Your task to perform on an android device: turn off javascript in the chrome app Image 0: 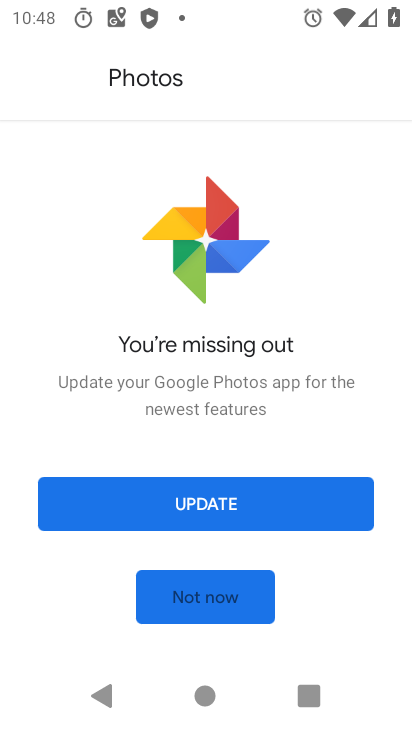
Step 0: press home button
Your task to perform on an android device: turn off javascript in the chrome app Image 1: 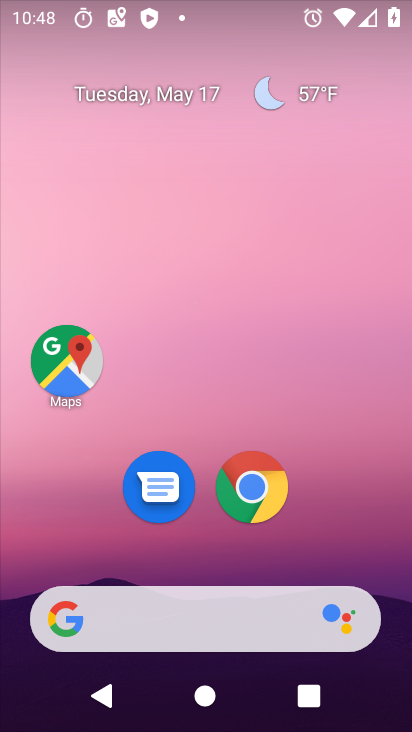
Step 1: click (252, 480)
Your task to perform on an android device: turn off javascript in the chrome app Image 2: 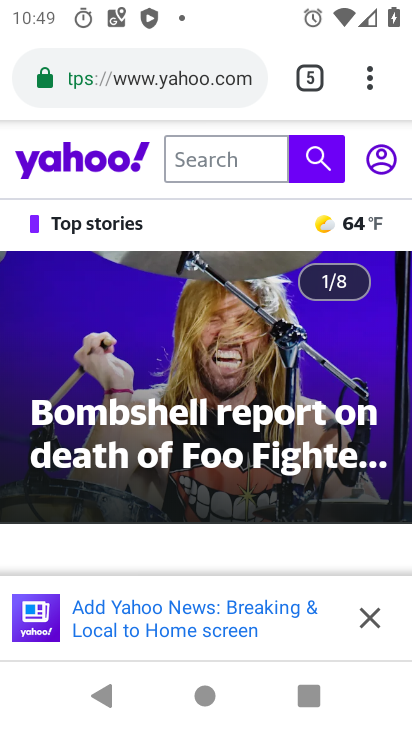
Step 2: click (373, 84)
Your task to perform on an android device: turn off javascript in the chrome app Image 3: 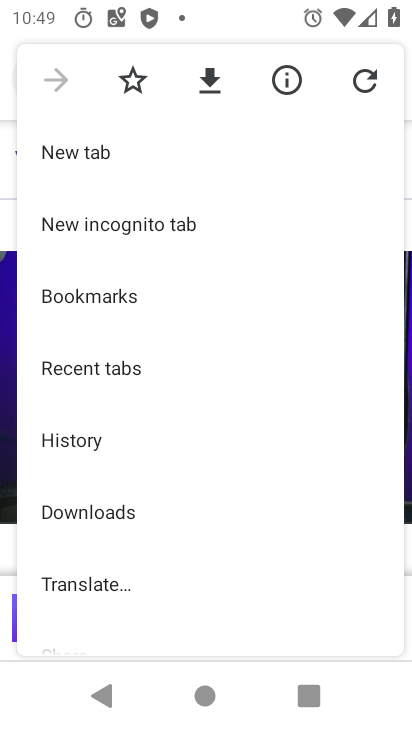
Step 3: drag from (96, 607) to (97, 217)
Your task to perform on an android device: turn off javascript in the chrome app Image 4: 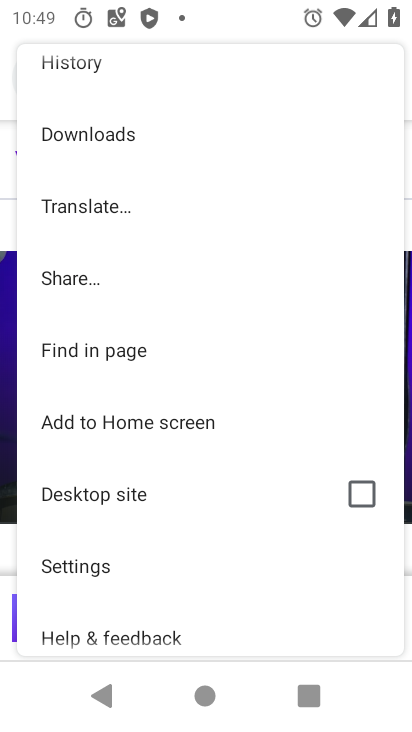
Step 4: click (75, 558)
Your task to perform on an android device: turn off javascript in the chrome app Image 5: 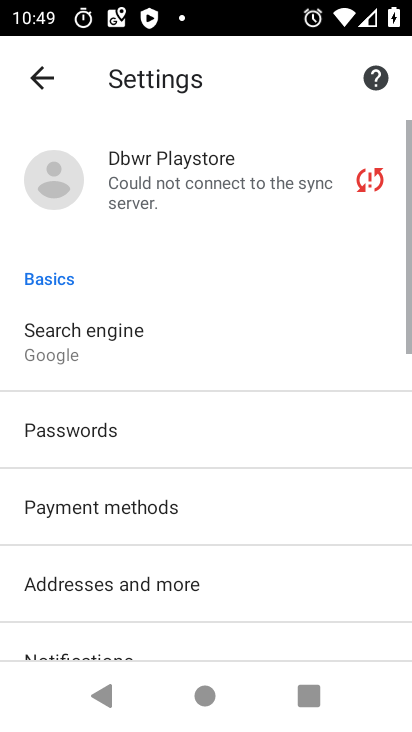
Step 5: drag from (116, 620) to (154, 224)
Your task to perform on an android device: turn off javascript in the chrome app Image 6: 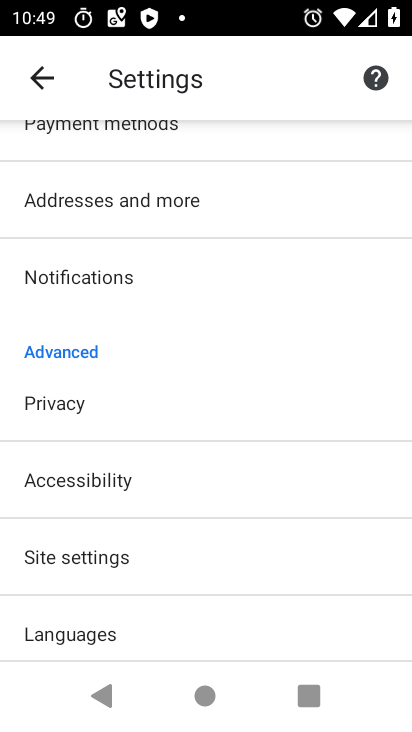
Step 6: click (87, 556)
Your task to perform on an android device: turn off javascript in the chrome app Image 7: 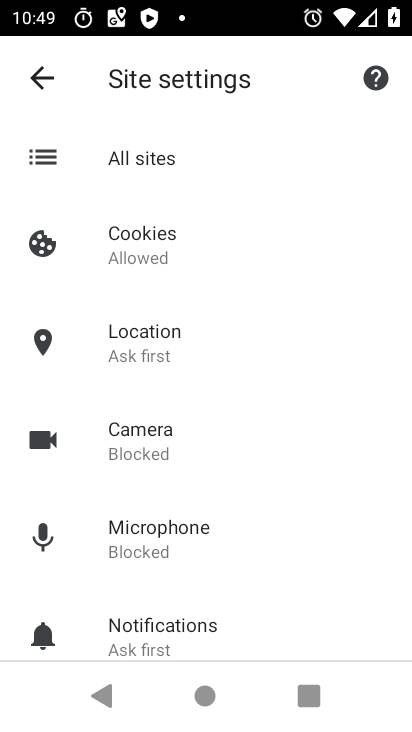
Step 7: drag from (192, 605) to (210, 131)
Your task to perform on an android device: turn off javascript in the chrome app Image 8: 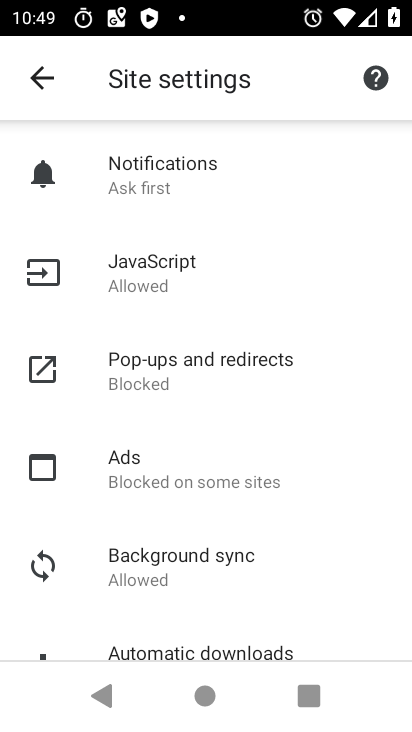
Step 8: click (156, 262)
Your task to perform on an android device: turn off javascript in the chrome app Image 9: 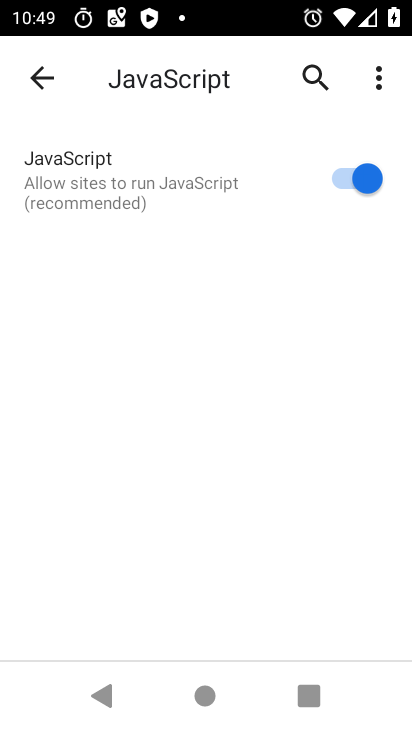
Step 9: click (347, 177)
Your task to perform on an android device: turn off javascript in the chrome app Image 10: 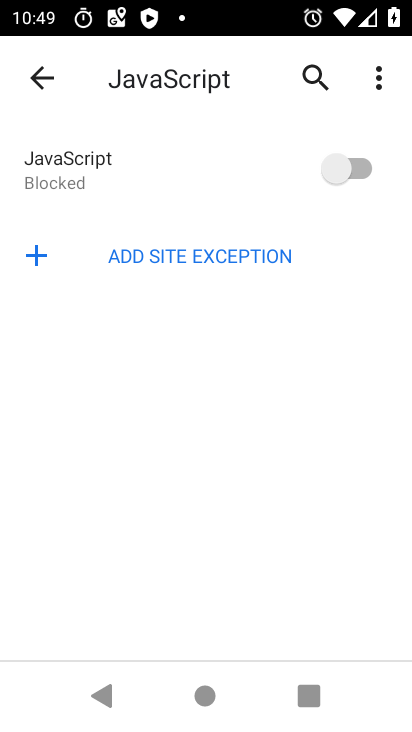
Step 10: task complete